Your task to perform on an android device: Open accessibility settings Image 0: 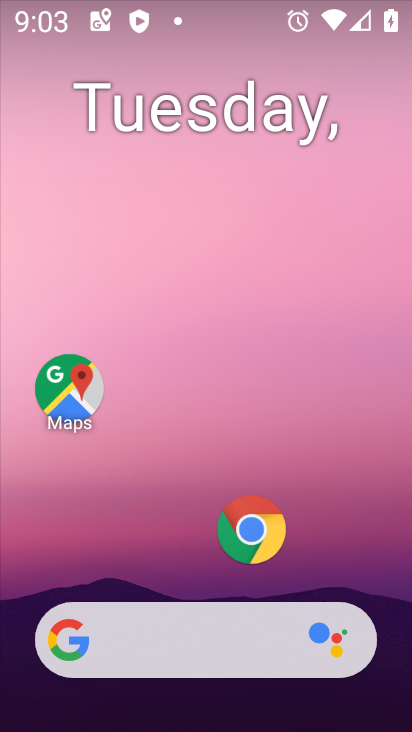
Step 0: press home button
Your task to perform on an android device: Open accessibility settings Image 1: 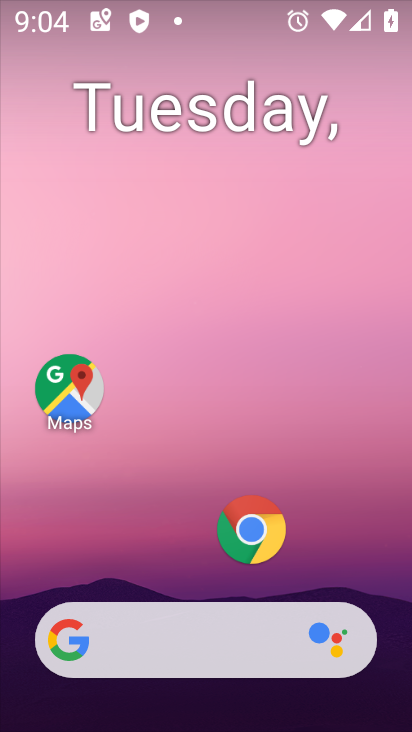
Step 1: drag from (201, 584) to (206, 14)
Your task to perform on an android device: Open accessibility settings Image 2: 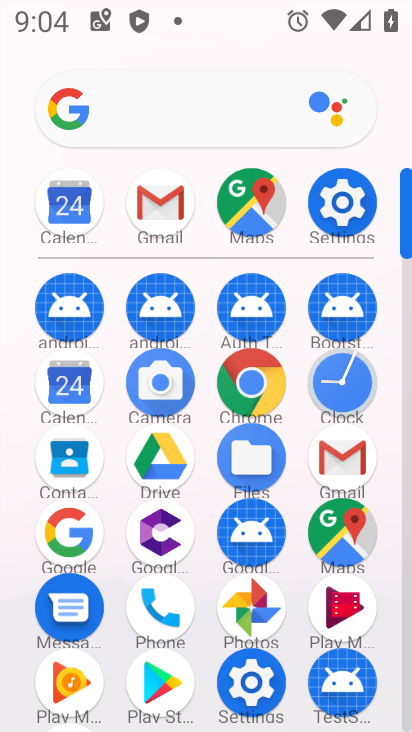
Step 2: click (341, 197)
Your task to perform on an android device: Open accessibility settings Image 3: 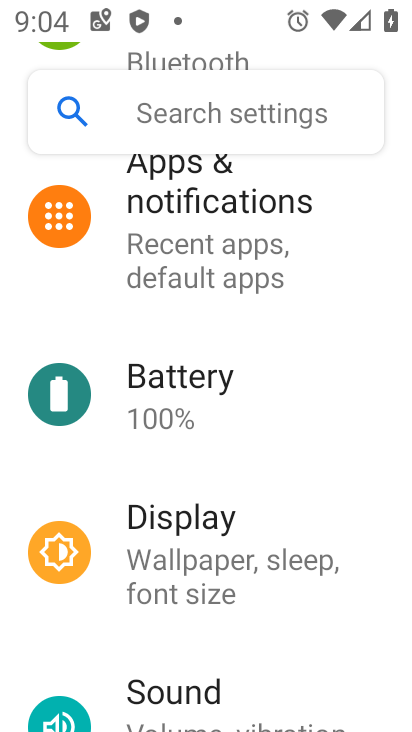
Step 3: drag from (234, 689) to (211, 100)
Your task to perform on an android device: Open accessibility settings Image 4: 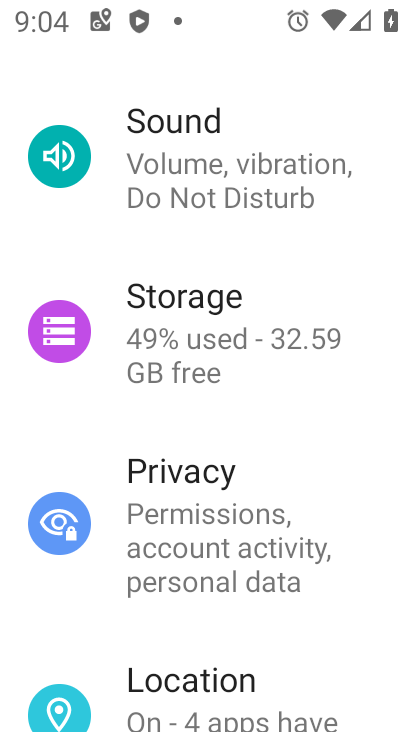
Step 4: drag from (289, 687) to (305, 47)
Your task to perform on an android device: Open accessibility settings Image 5: 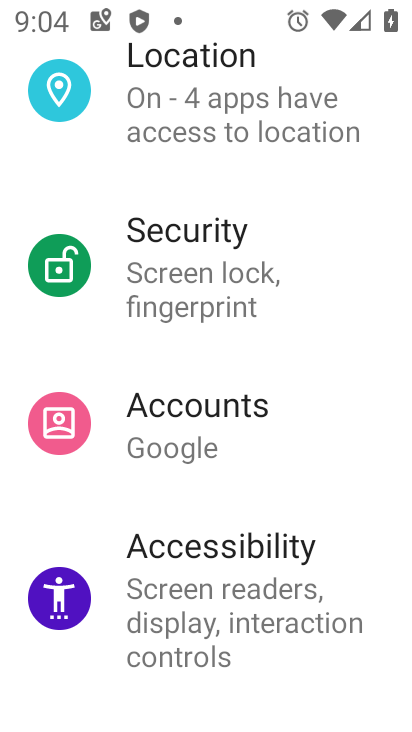
Step 5: click (339, 557)
Your task to perform on an android device: Open accessibility settings Image 6: 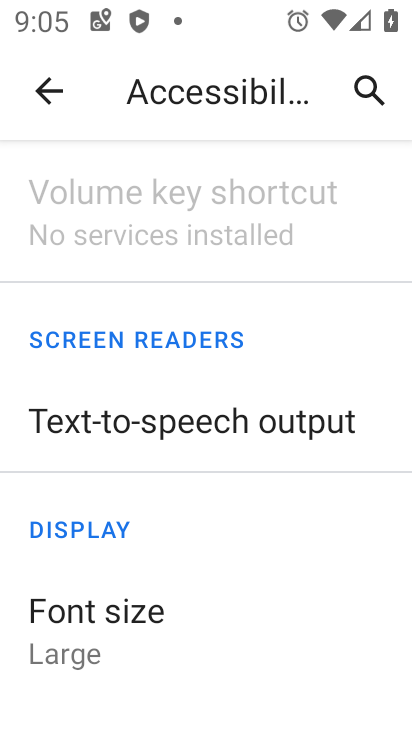
Step 6: task complete